Your task to perform on an android device: Open the calendar and show me this week's events? Image 0: 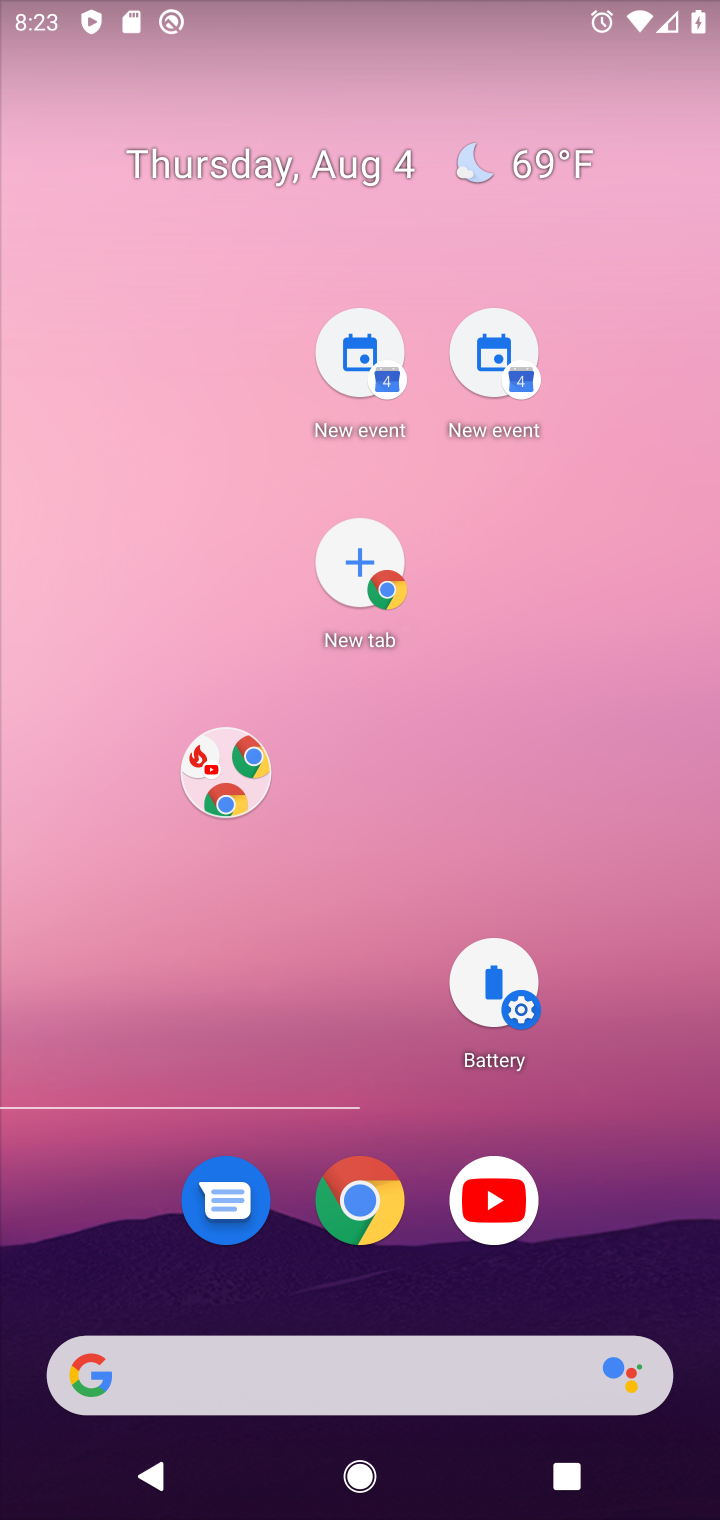
Step 0: press back button
Your task to perform on an android device: Open the calendar and show me this week's events? Image 1: 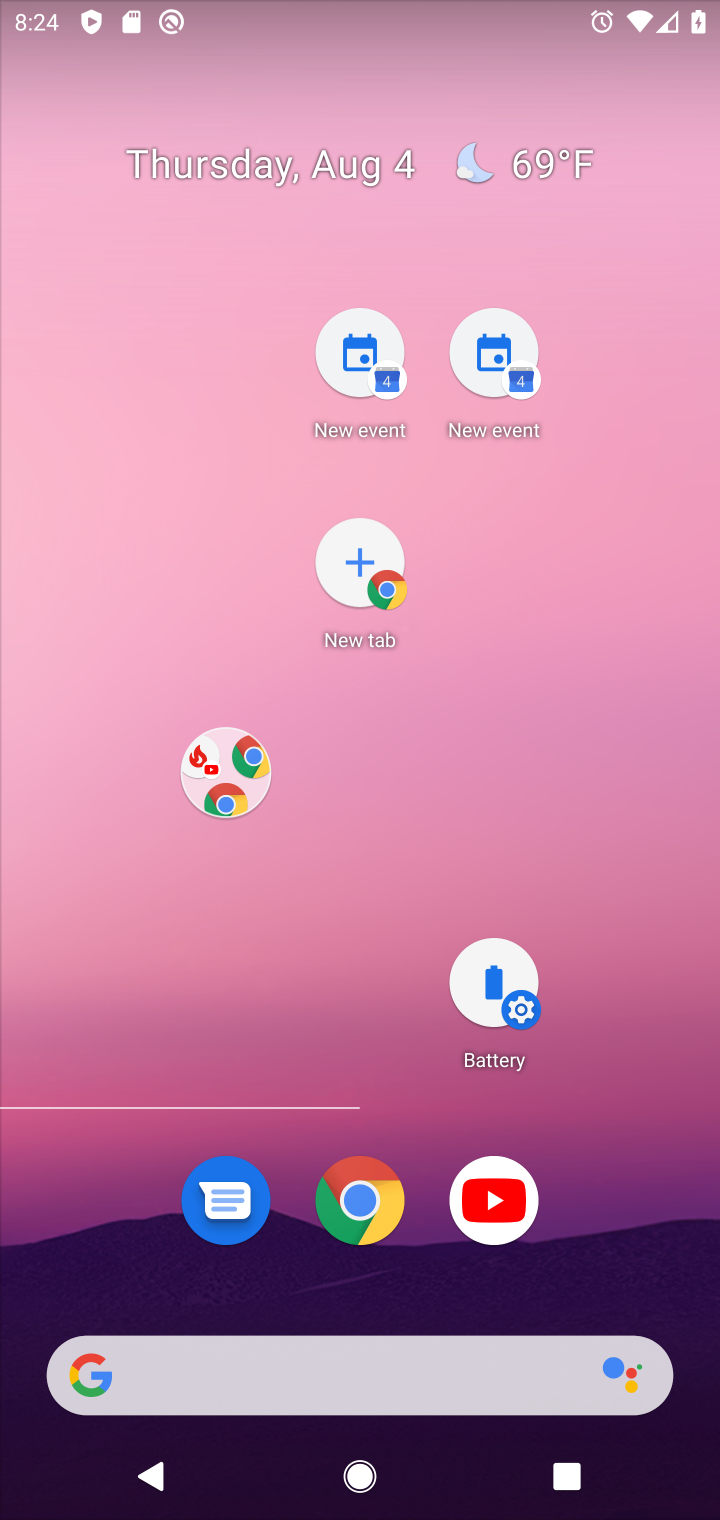
Step 1: drag from (662, 1297) to (591, 39)
Your task to perform on an android device: Open the calendar and show me this week's events? Image 2: 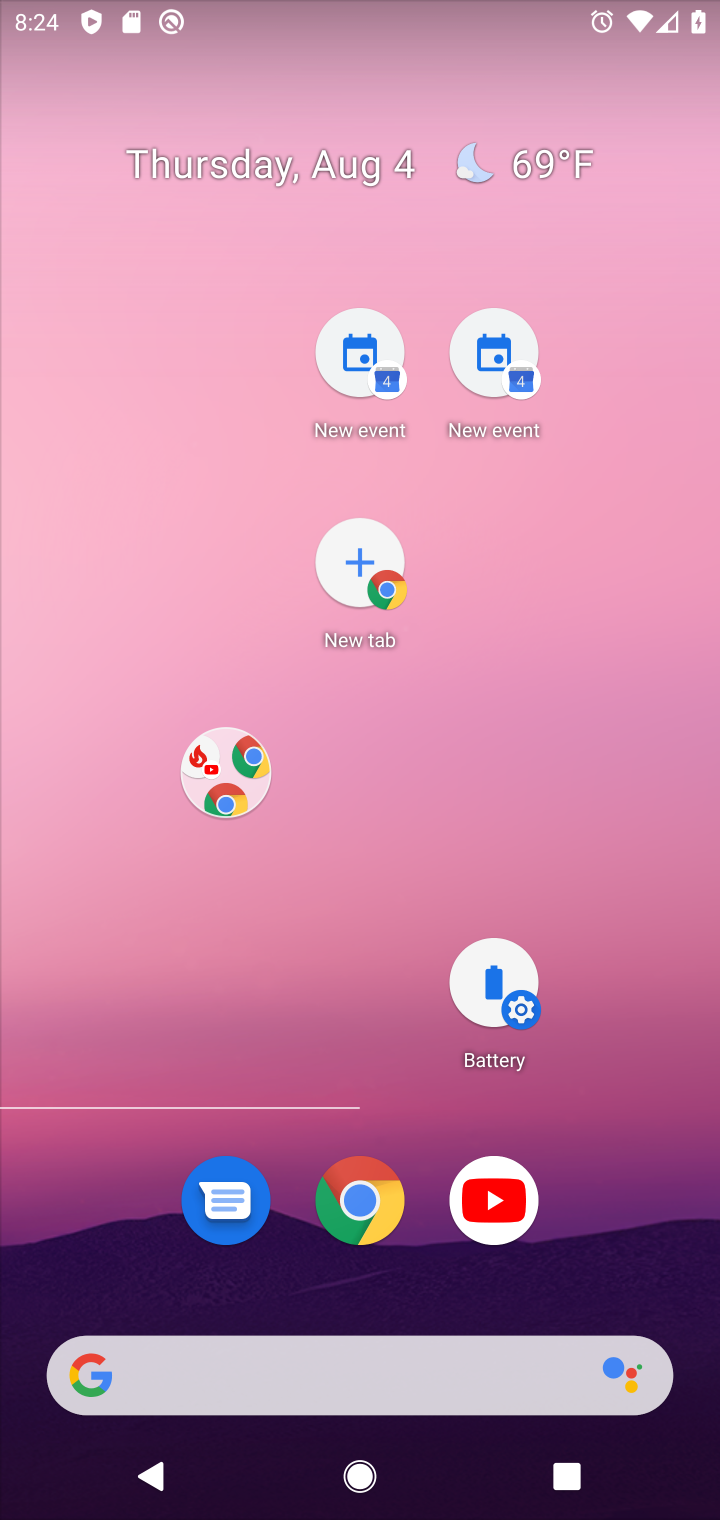
Step 2: drag from (497, 60) to (367, 204)
Your task to perform on an android device: Open the calendar and show me this week's events? Image 3: 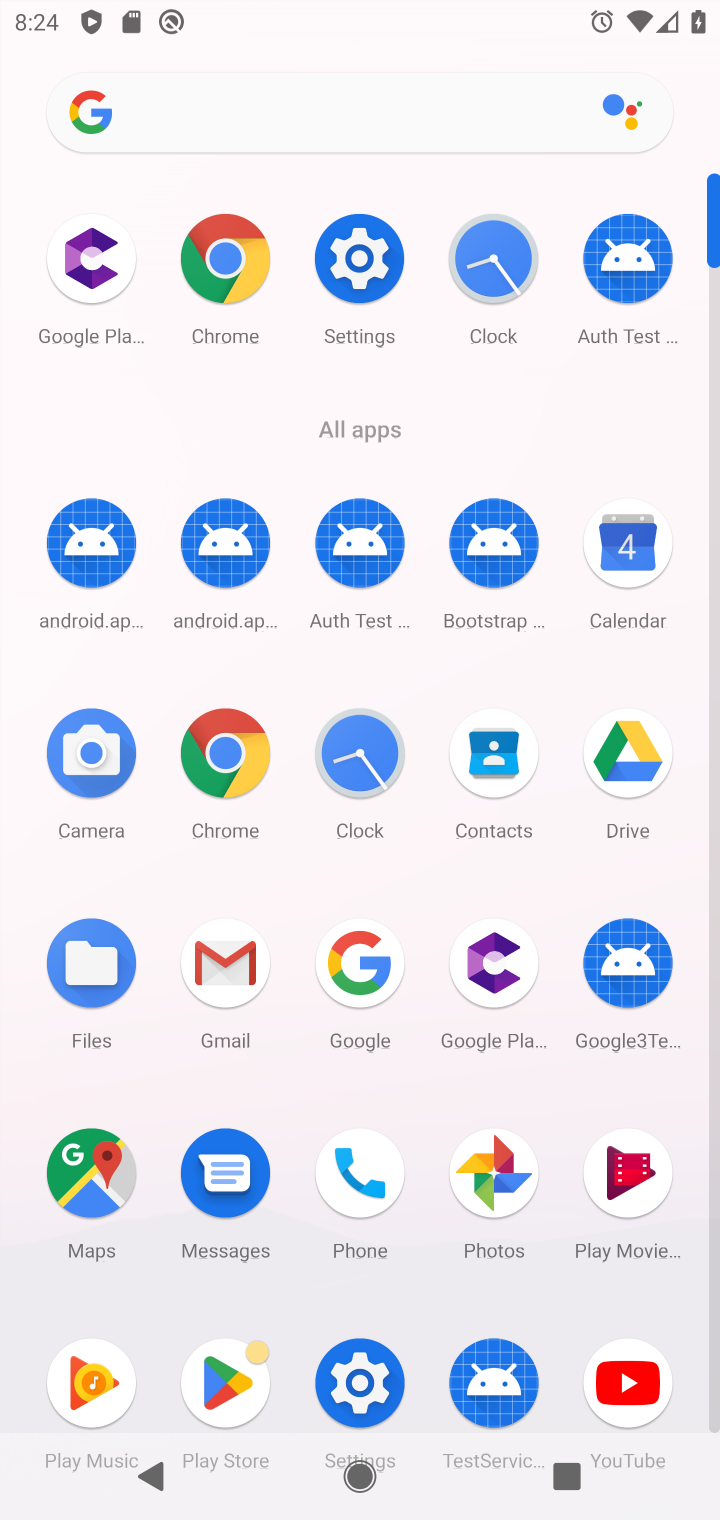
Step 3: click (639, 564)
Your task to perform on an android device: Open the calendar and show me this week's events? Image 4: 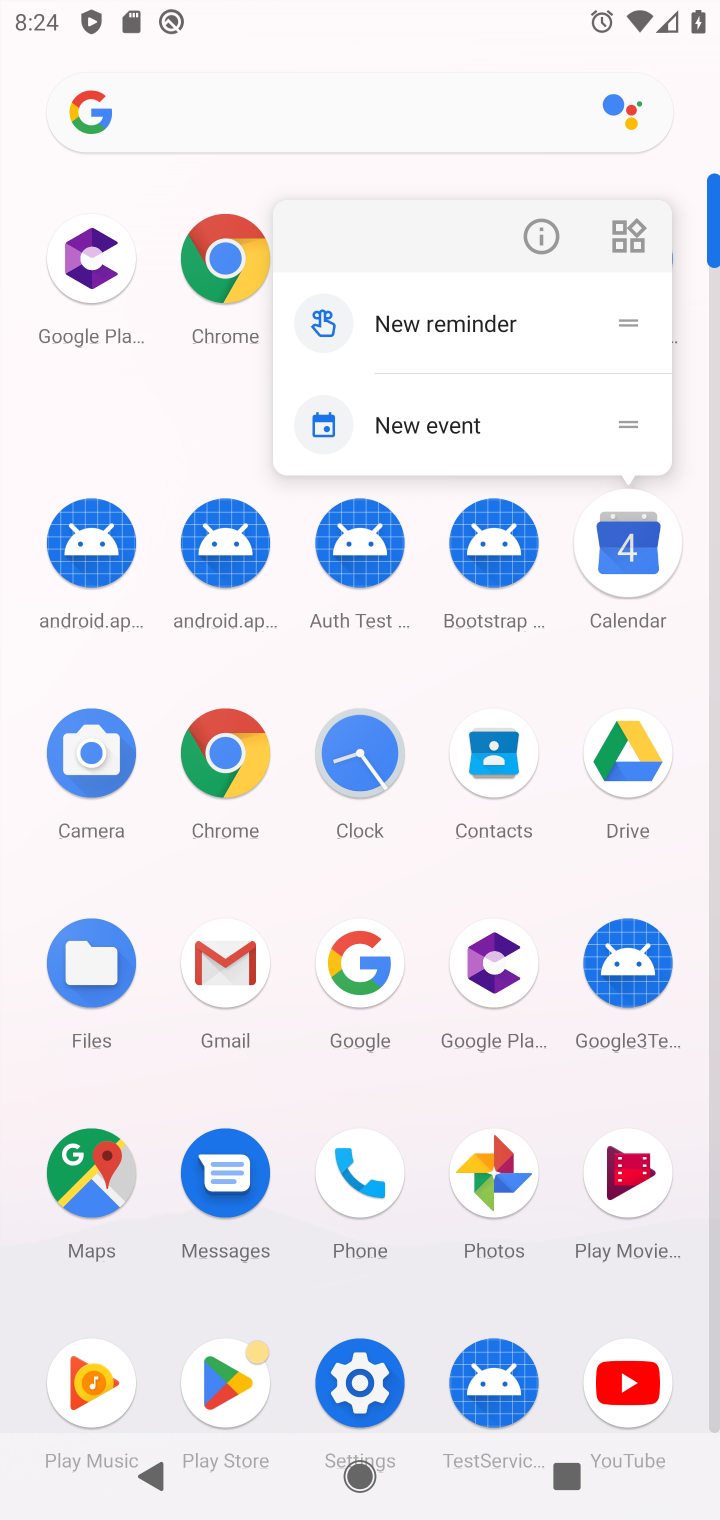
Step 4: click (625, 576)
Your task to perform on an android device: Open the calendar and show me this week's events? Image 5: 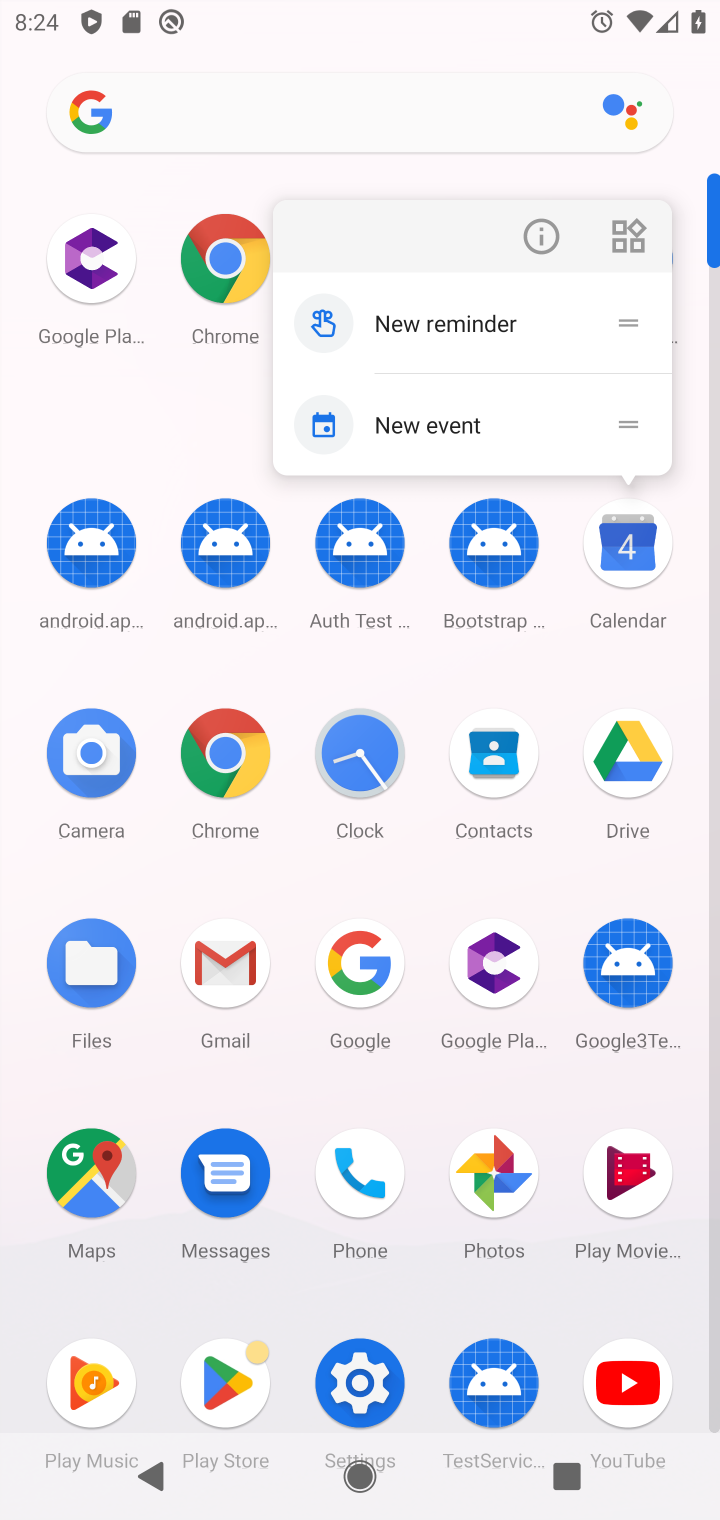
Step 5: click (626, 580)
Your task to perform on an android device: Open the calendar and show me this week's events? Image 6: 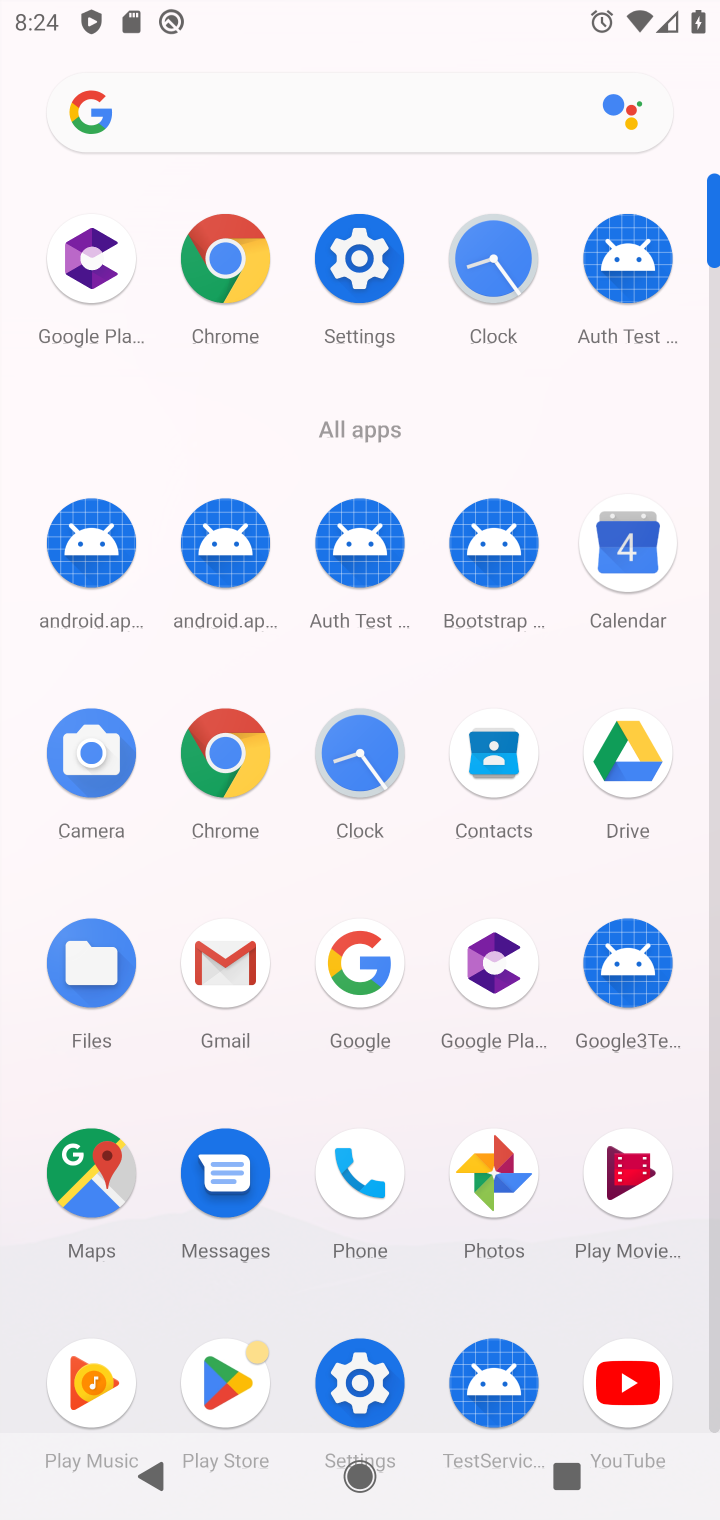
Step 6: click (628, 582)
Your task to perform on an android device: Open the calendar and show me this week's events? Image 7: 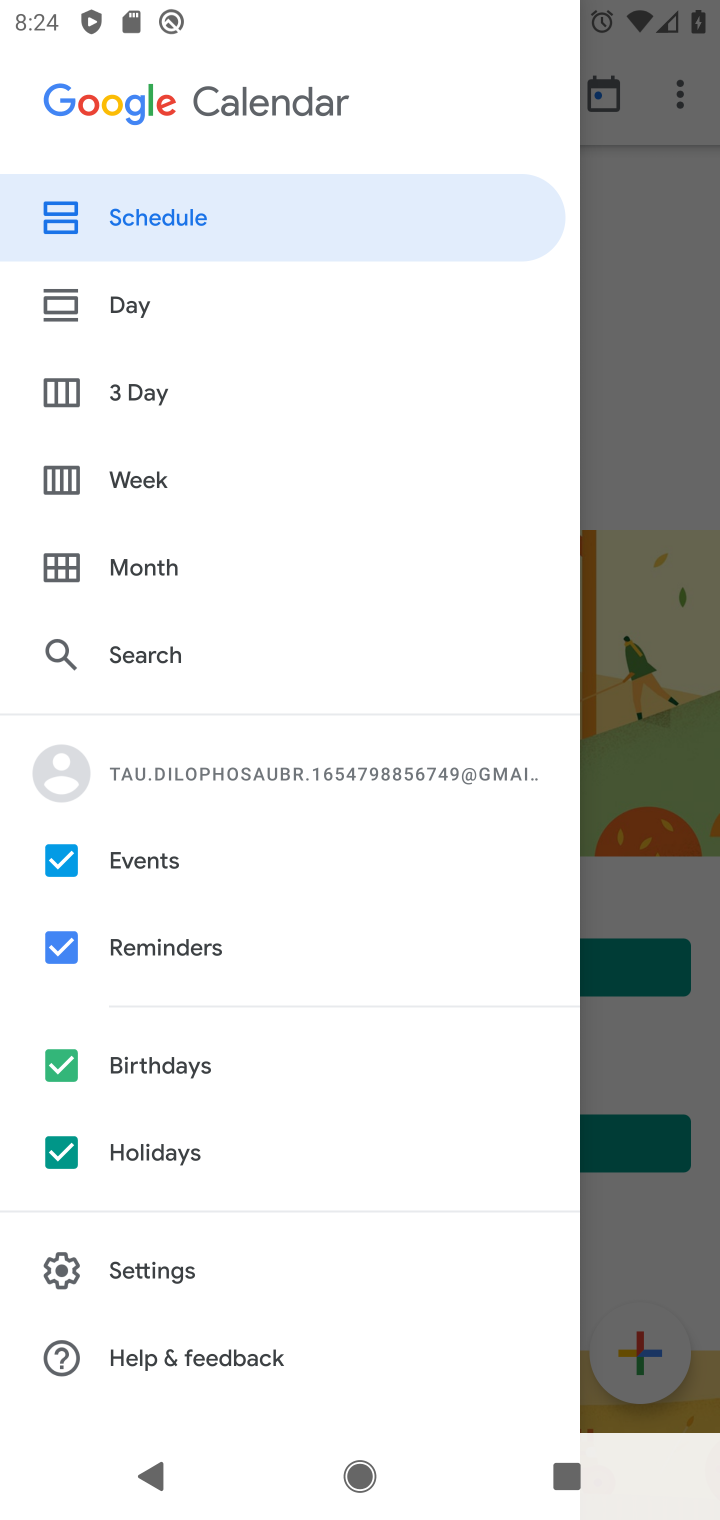
Step 7: click (144, 873)
Your task to perform on an android device: Open the calendar and show me this week's events? Image 8: 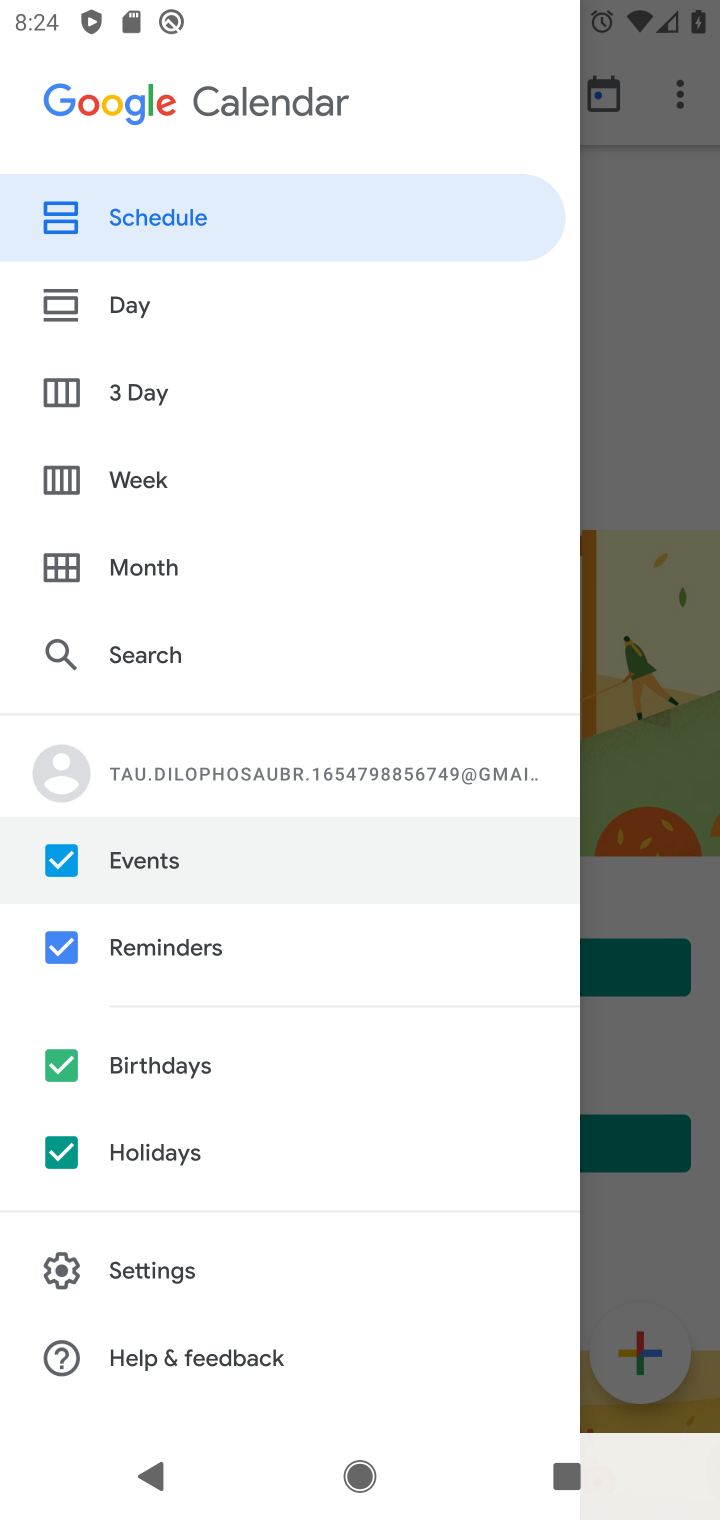
Step 8: click (144, 873)
Your task to perform on an android device: Open the calendar and show me this week's events? Image 9: 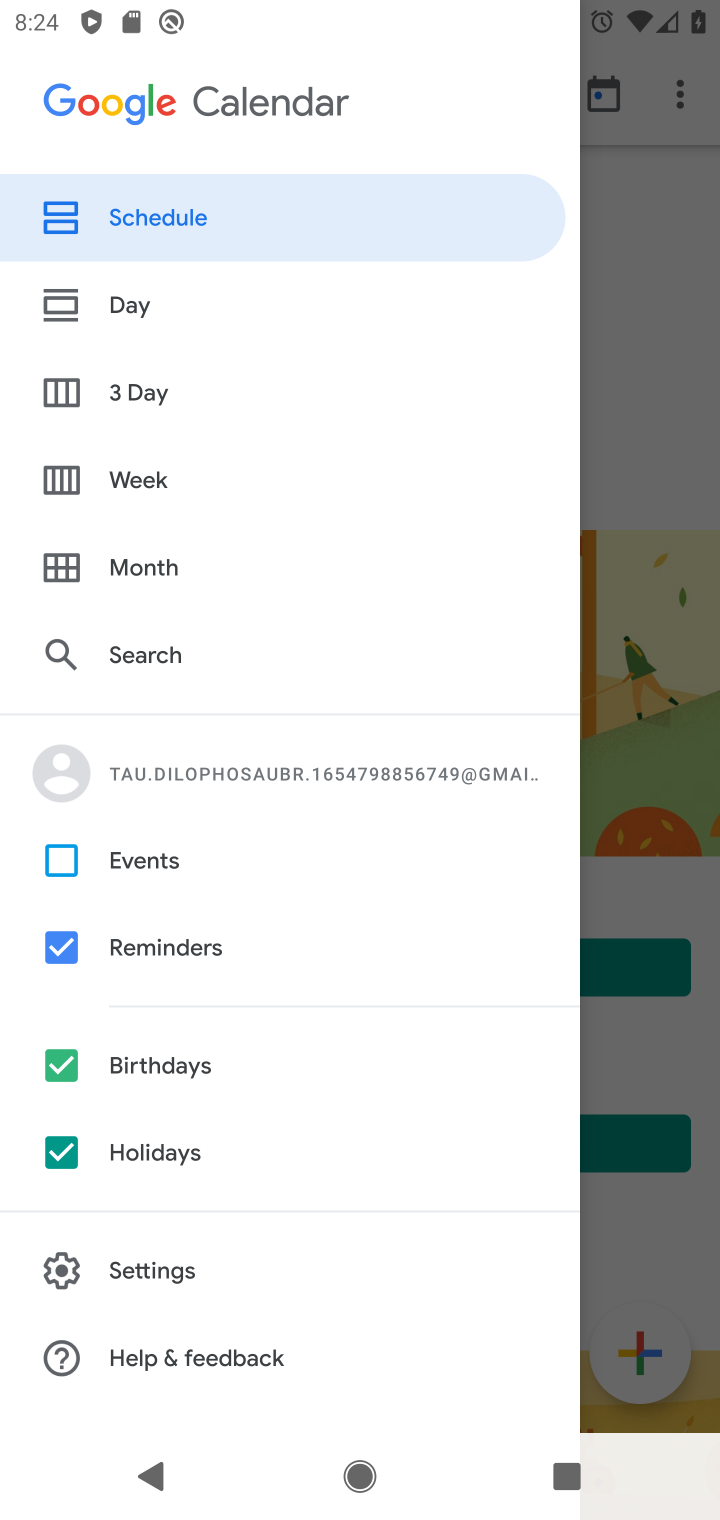
Step 9: click (664, 703)
Your task to perform on an android device: Open the calendar and show me this week's events? Image 10: 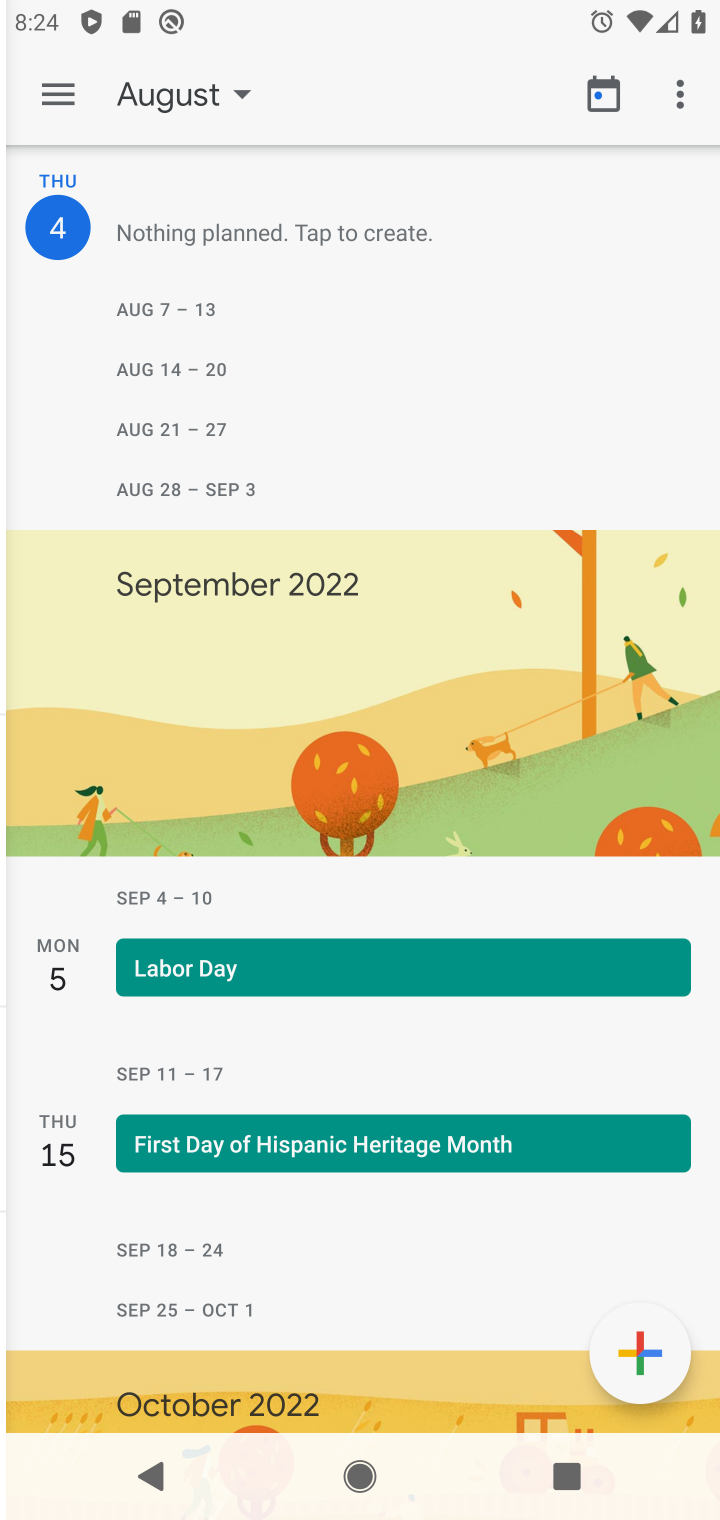
Step 10: click (192, 861)
Your task to perform on an android device: Open the calendar and show me this week's events? Image 11: 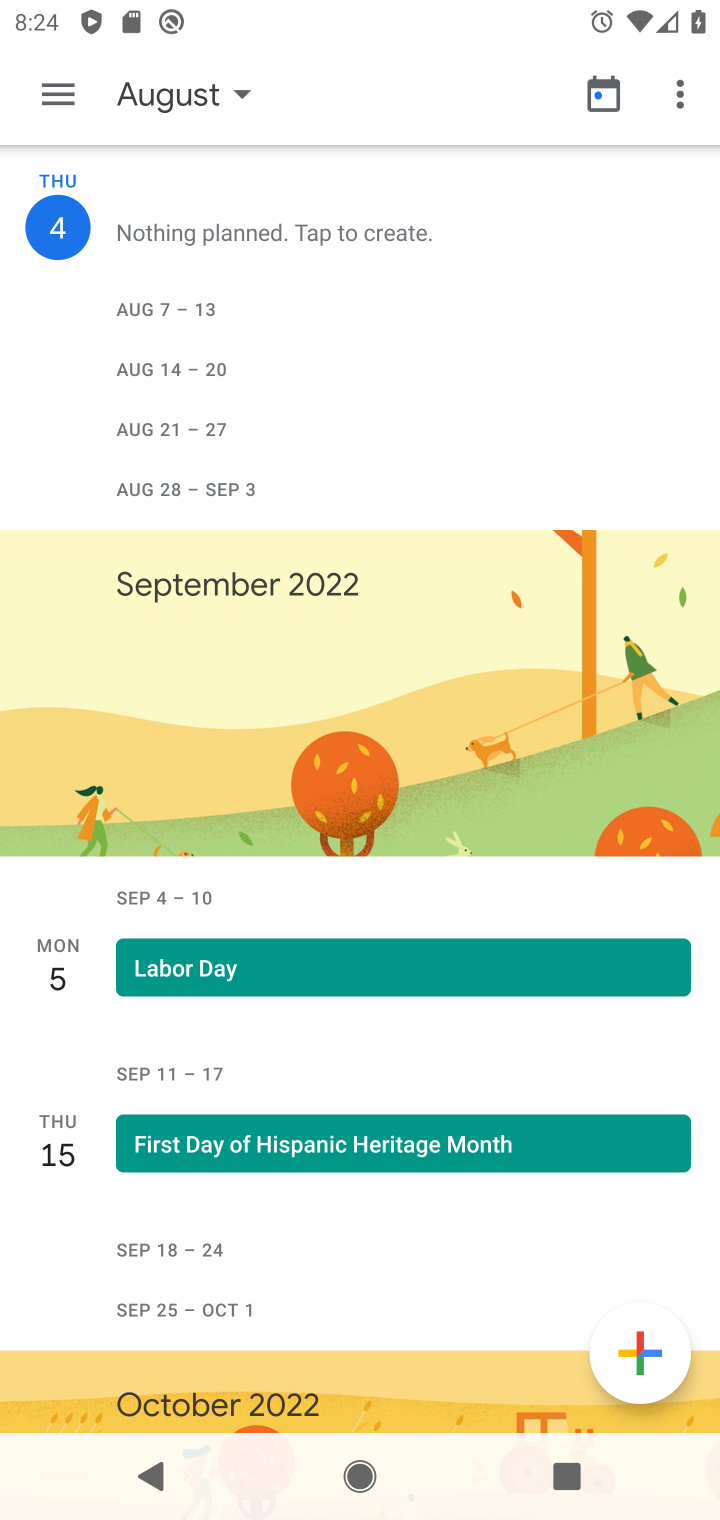
Step 11: click (192, 861)
Your task to perform on an android device: Open the calendar and show me this week's events? Image 12: 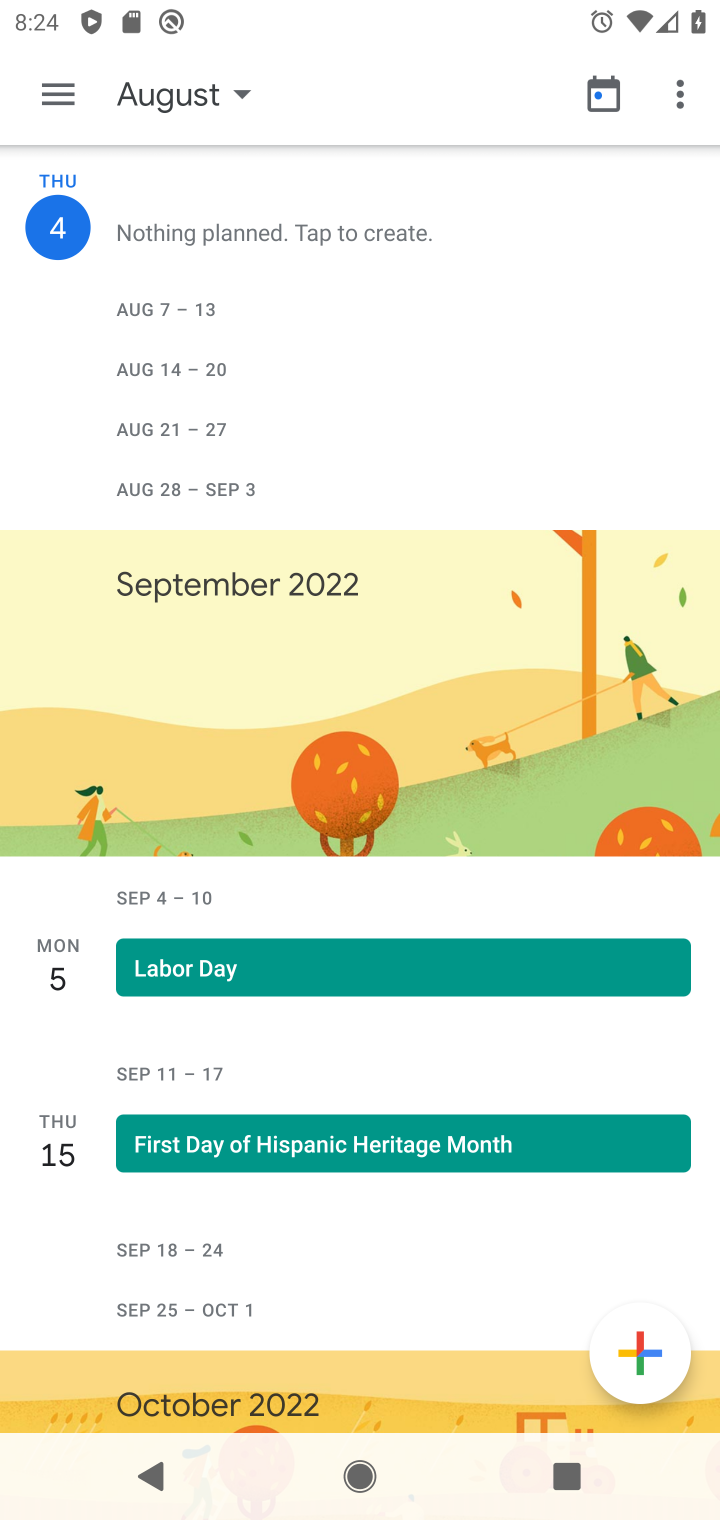
Step 12: click (241, 110)
Your task to perform on an android device: Open the calendar and show me this week's events? Image 13: 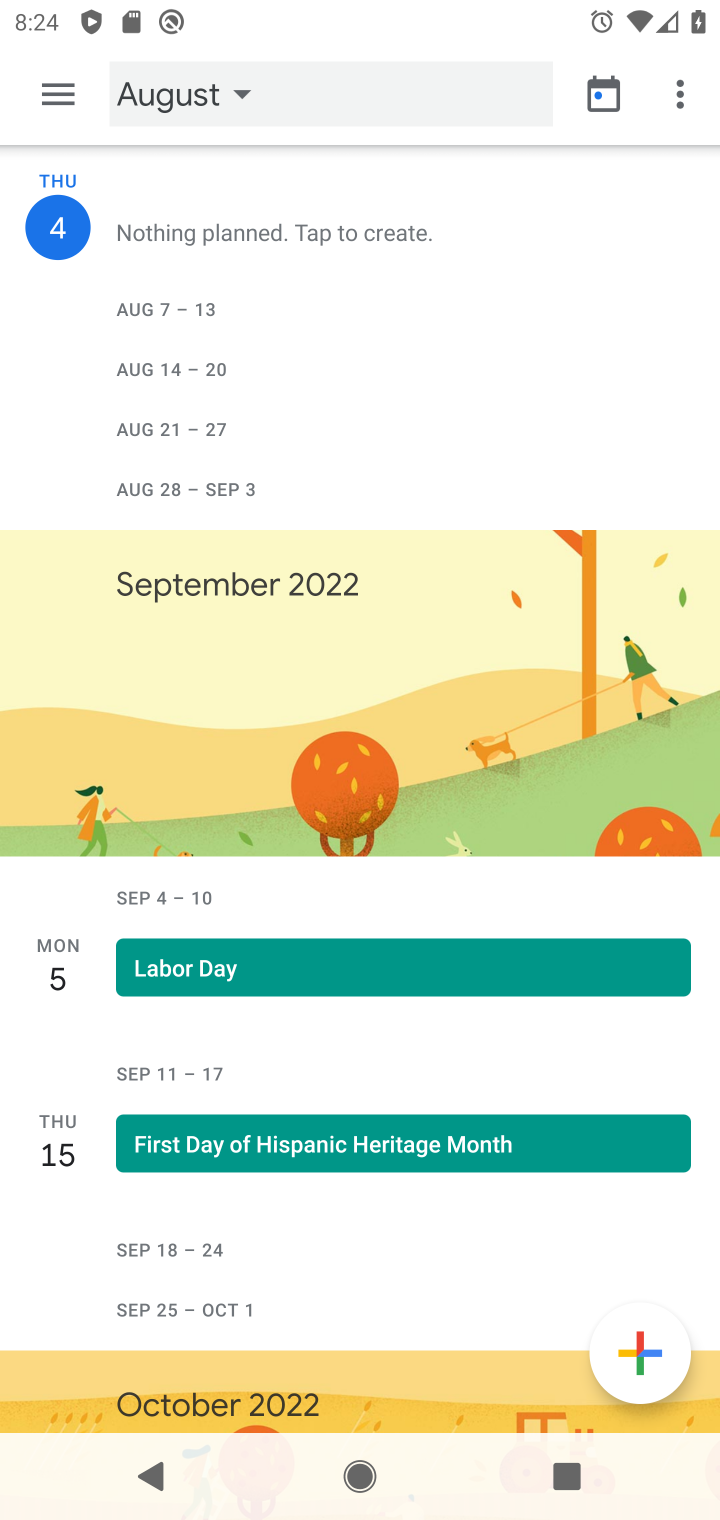
Step 13: click (241, 110)
Your task to perform on an android device: Open the calendar and show me this week's events? Image 14: 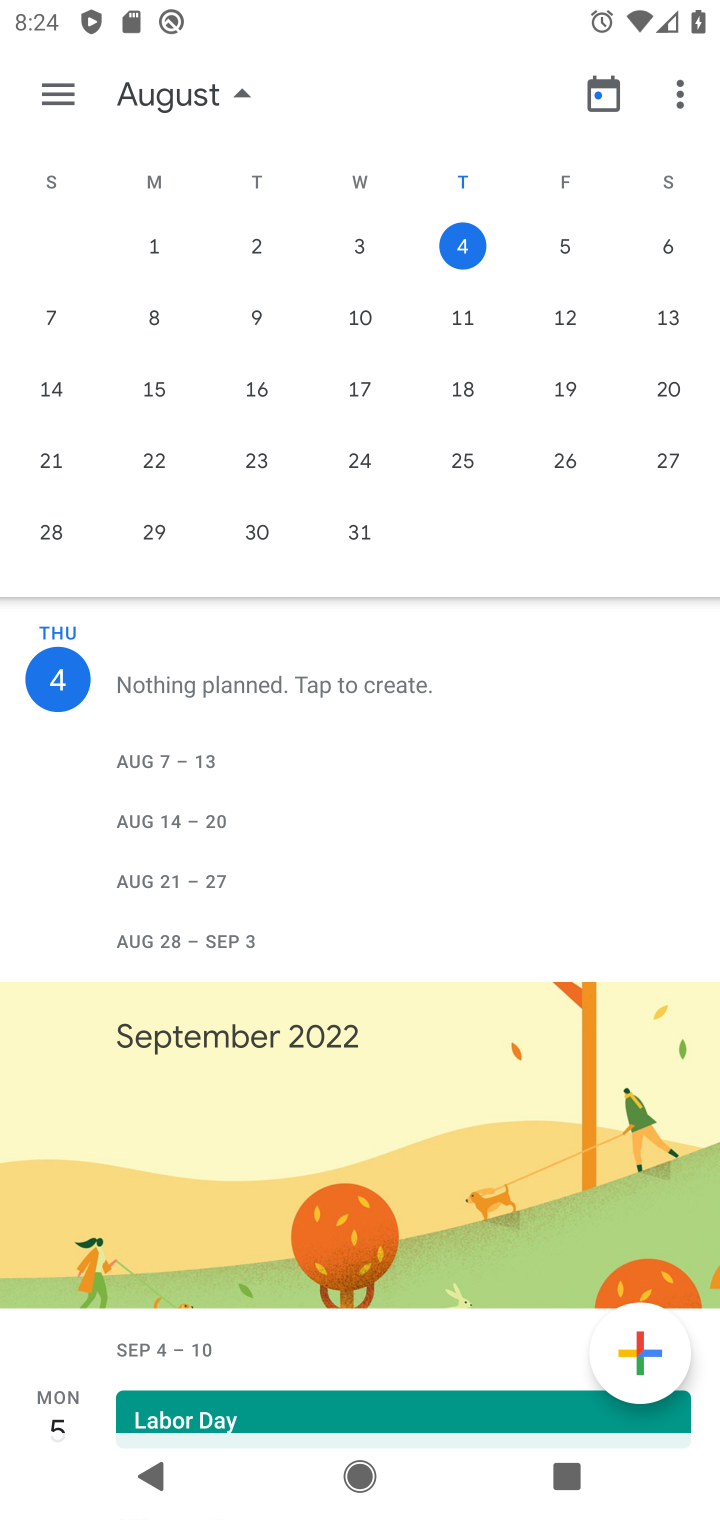
Step 14: click (236, 96)
Your task to perform on an android device: Open the calendar and show me this week's events? Image 15: 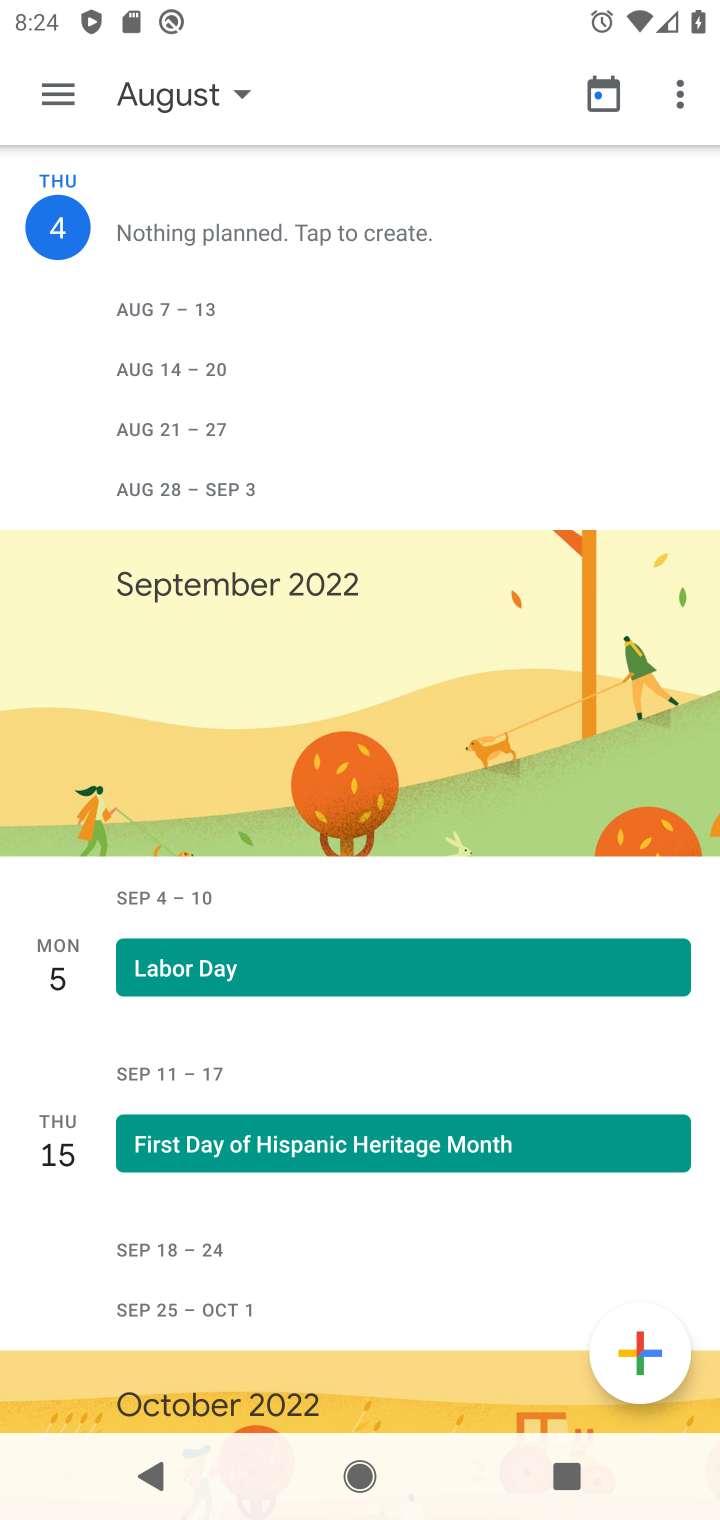
Step 15: click (235, 78)
Your task to perform on an android device: Open the calendar and show me this week's events? Image 16: 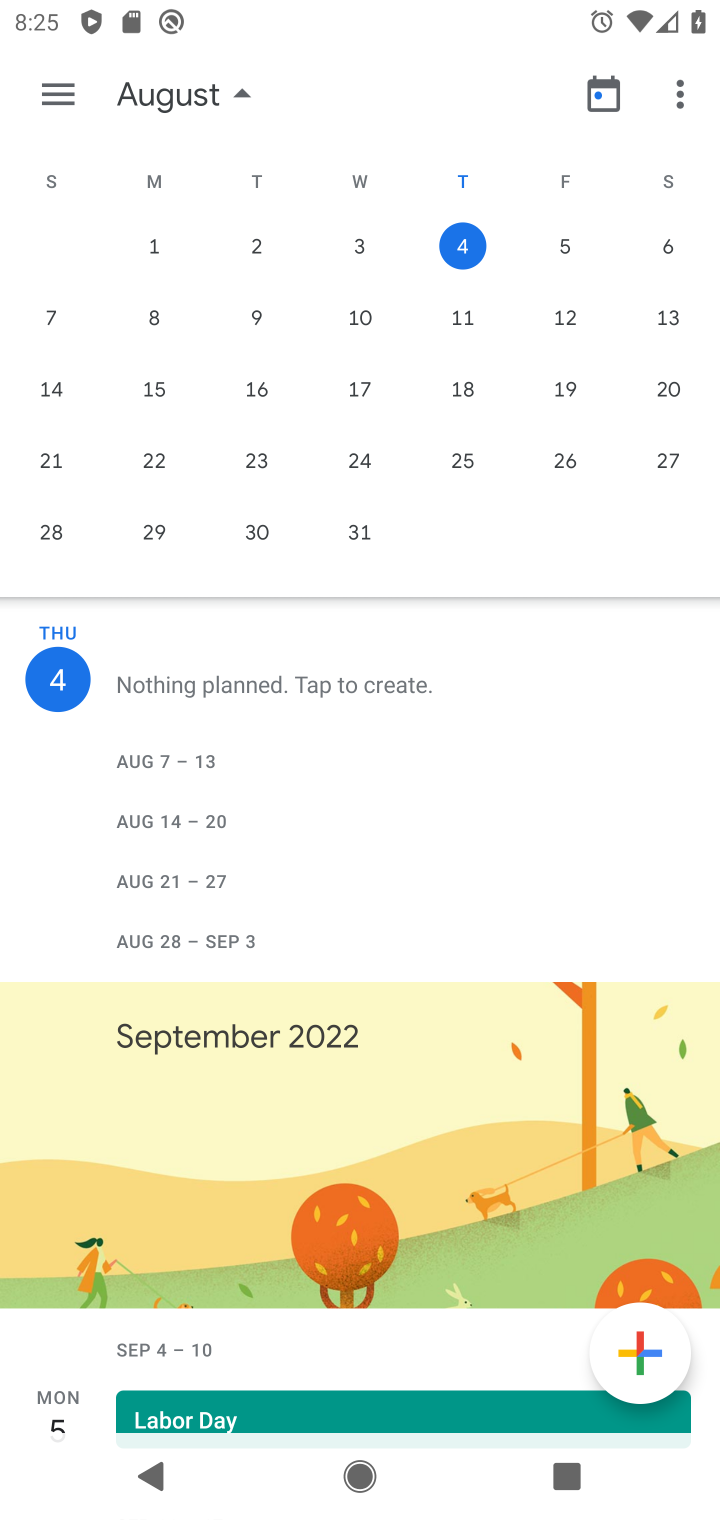
Step 16: drag from (482, 300) to (126, 346)
Your task to perform on an android device: Open the calendar and show me this week's events? Image 17: 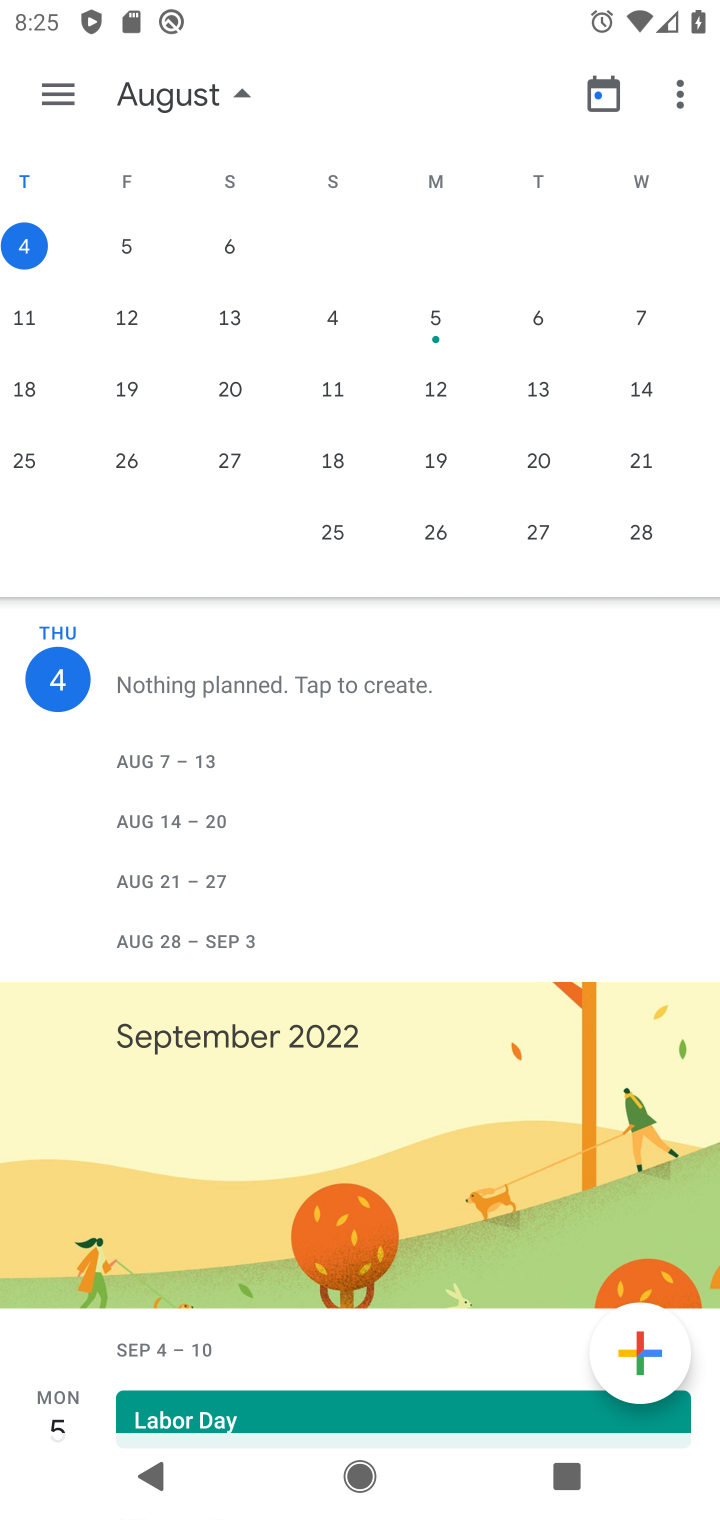
Step 17: drag from (557, 370) to (27, 371)
Your task to perform on an android device: Open the calendar and show me this week's events? Image 18: 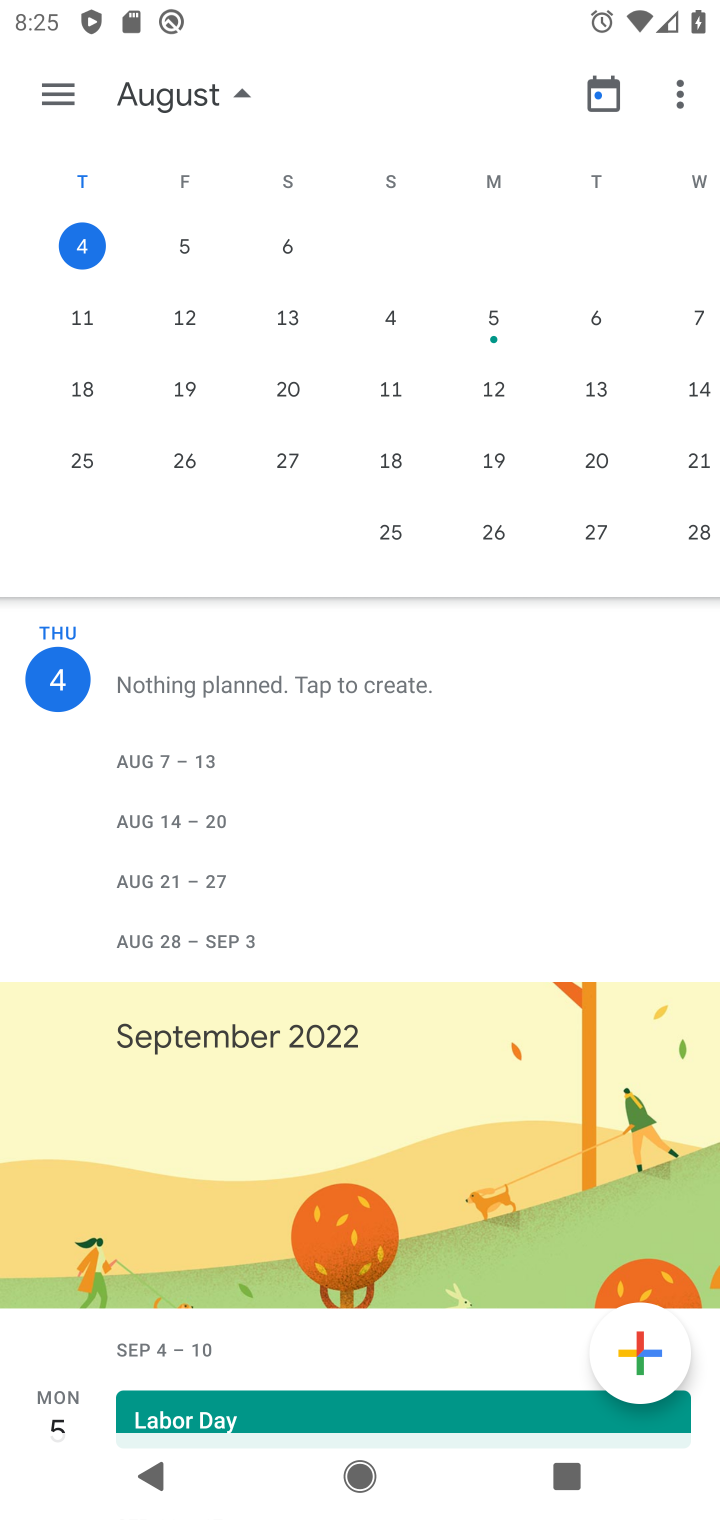
Step 18: click (62, 450)
Your task to perform on an android device: Open the calendar and show me this week's events? Image 19: 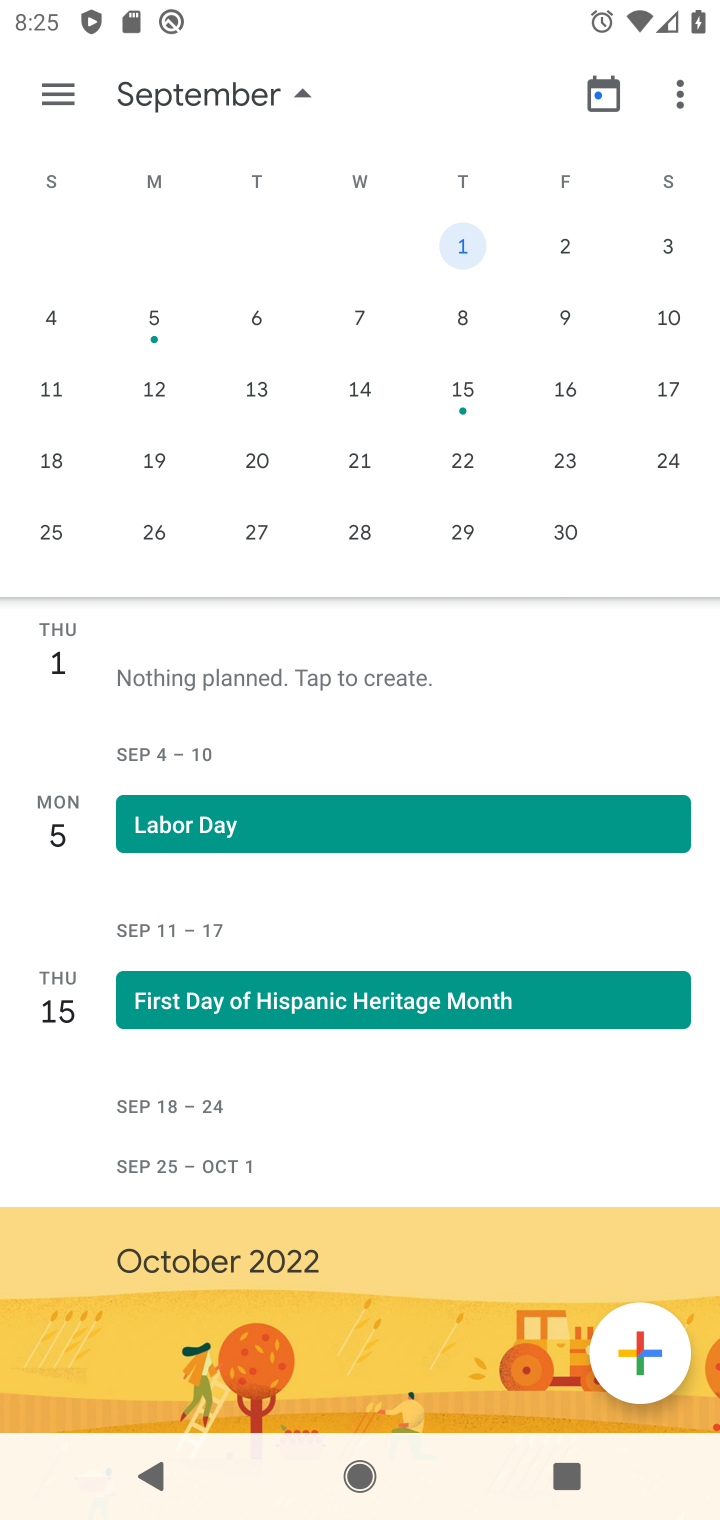
Step 19: click (464, 319)
Your task to perform on an android device: Open the calendar and show me this week's events? Image 20: 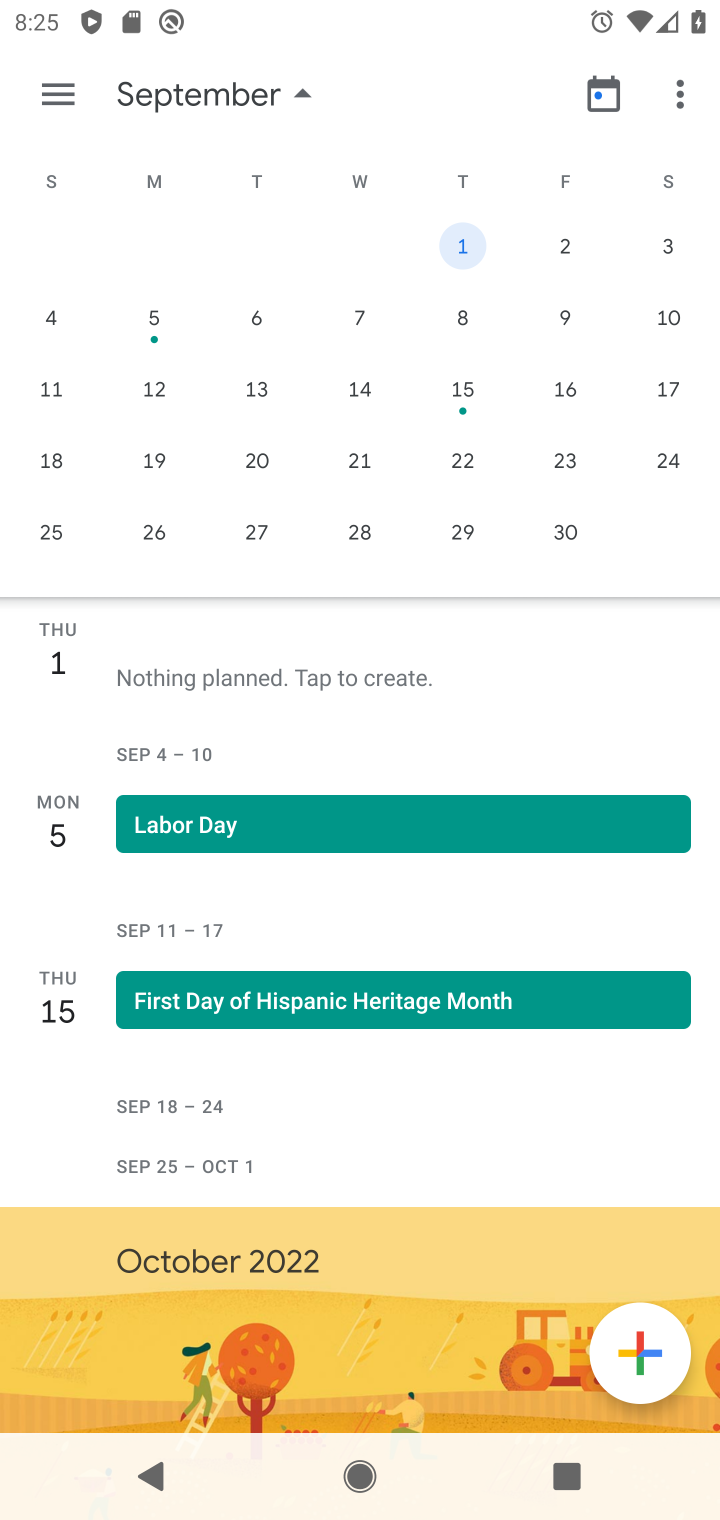
Step 20: click (474, 323)
Your task to perform on an android device: Open the calendar and show me this week's events? Image 21: 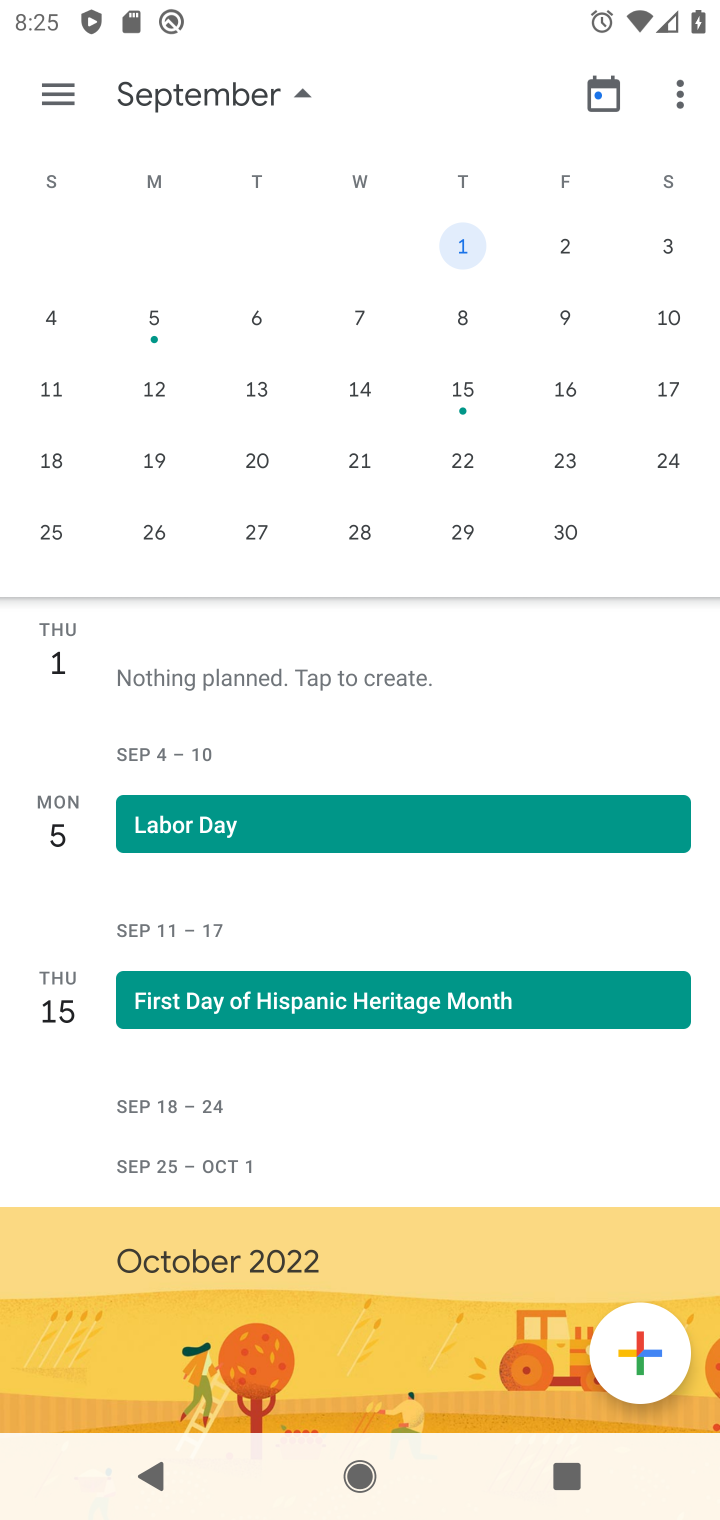
Step 21: task complete